Your task to perform on an android device: Show the shopping cart on bestbuy. Image 0: 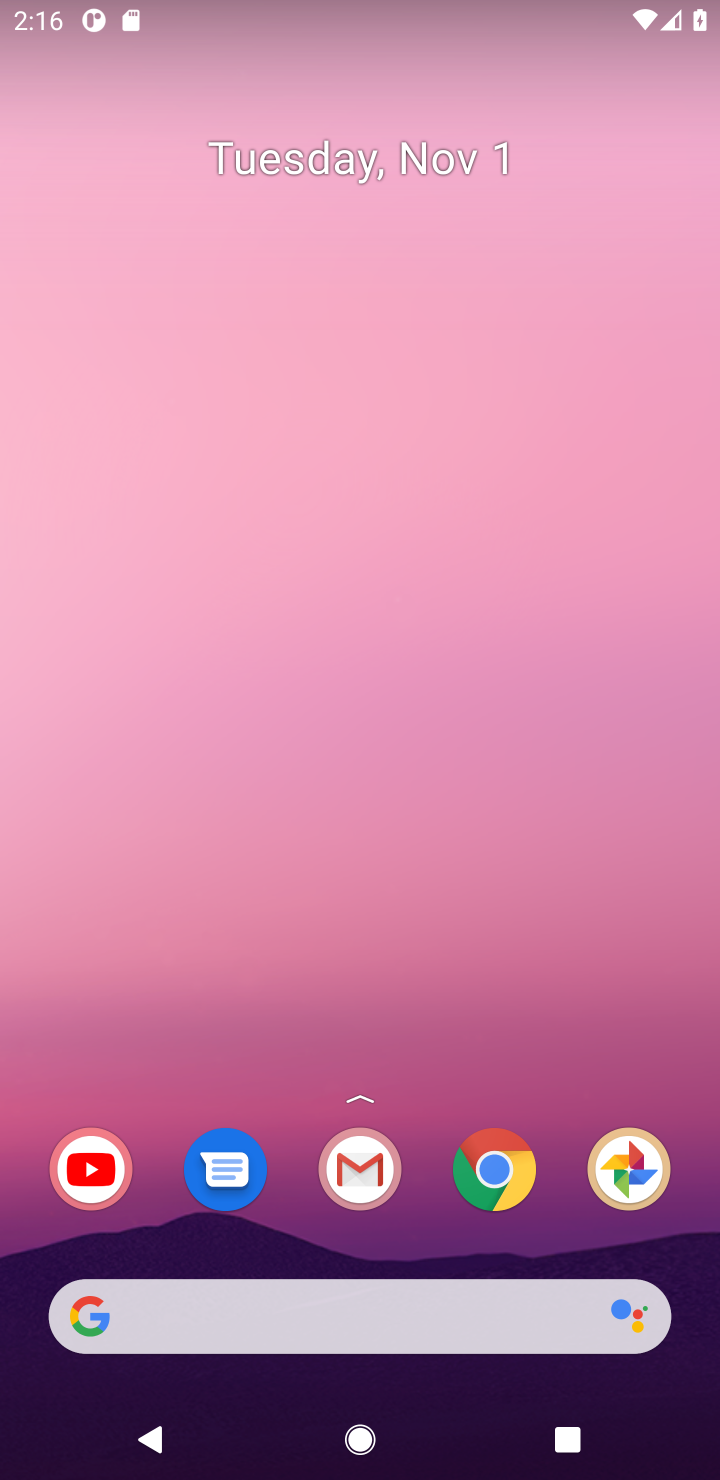
Step 0: press home button
Your task to perform on an android device: Show the shopping cart on bestbuy. Image 1: 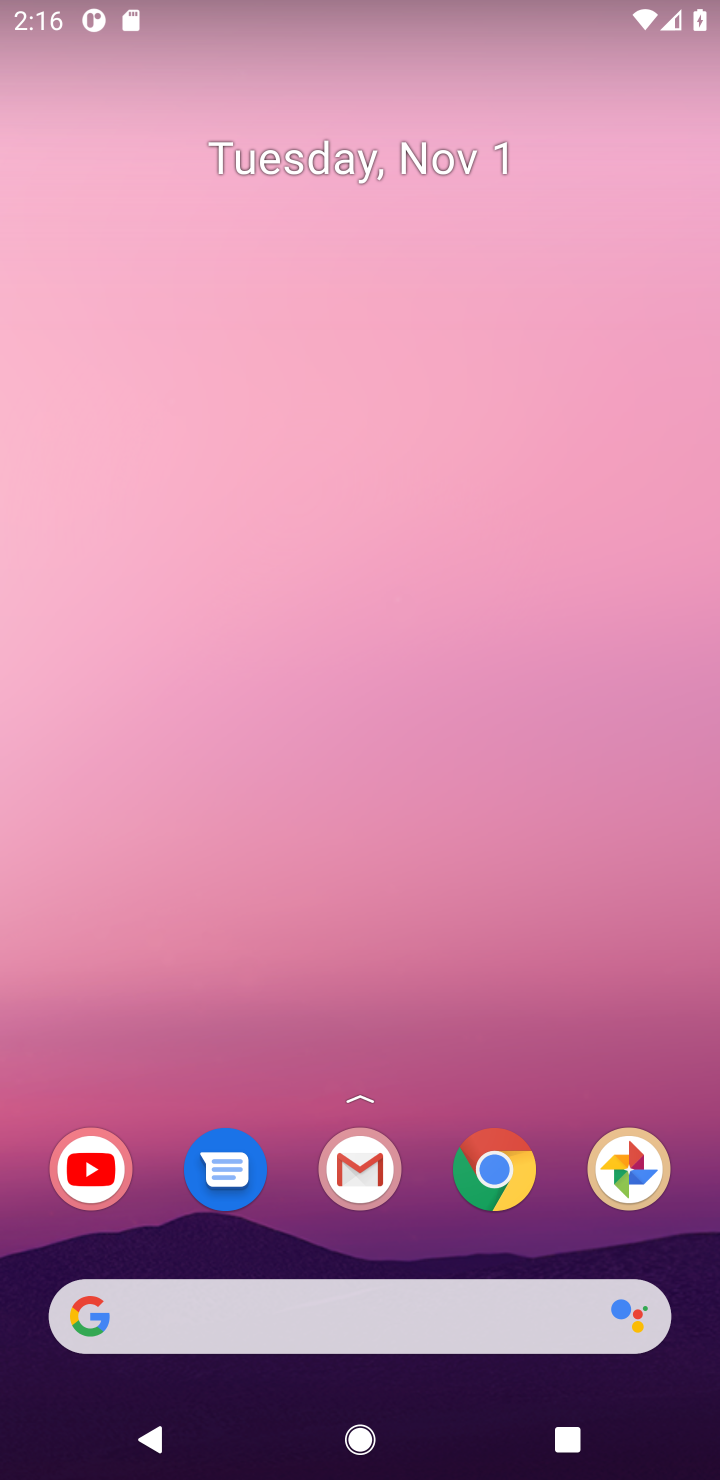
Step 1: drag from (426, 1039) to (460, 40)
Your task to perform on an android device: Show the shopping cart on bestbuy. Image 2: 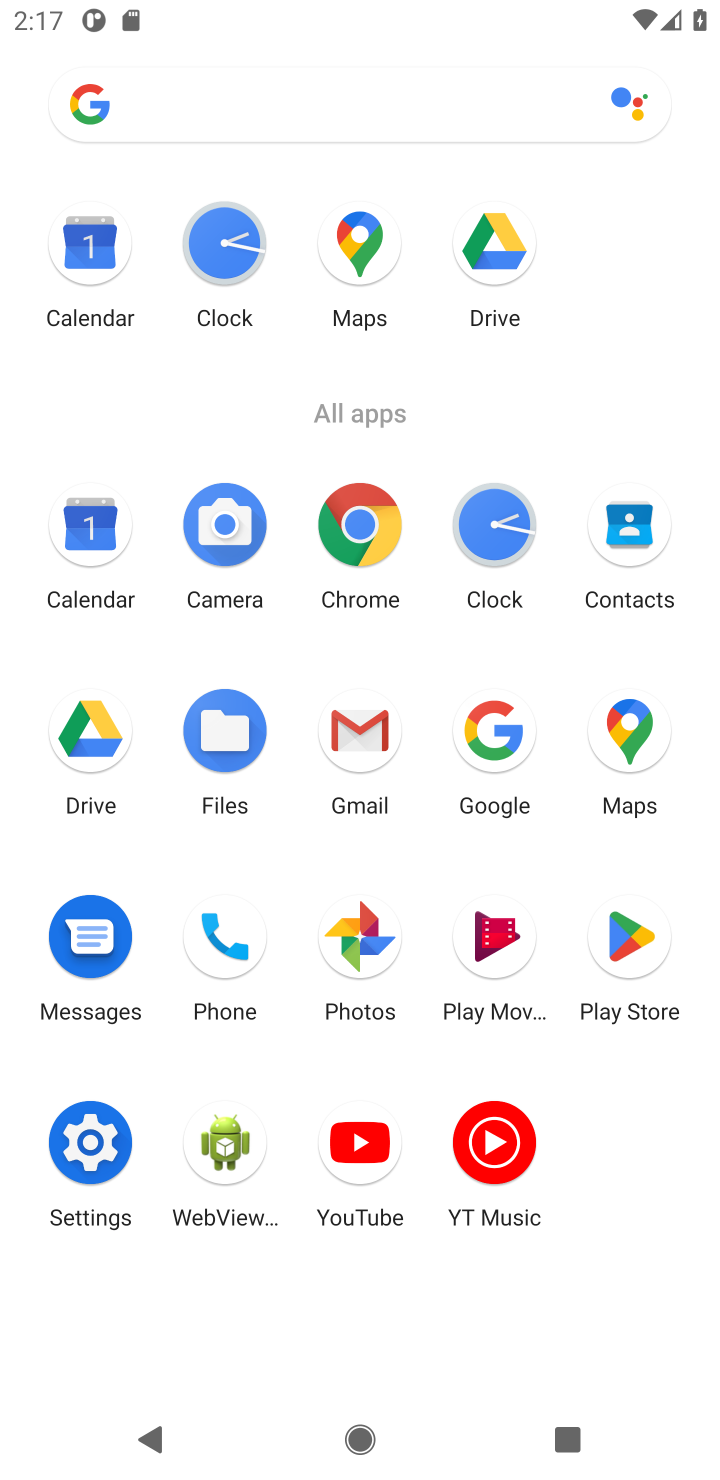
Step 2: click (355, 518)
Your task to perform on an android device: Show the shopping cart on bestbuy. Image 3: 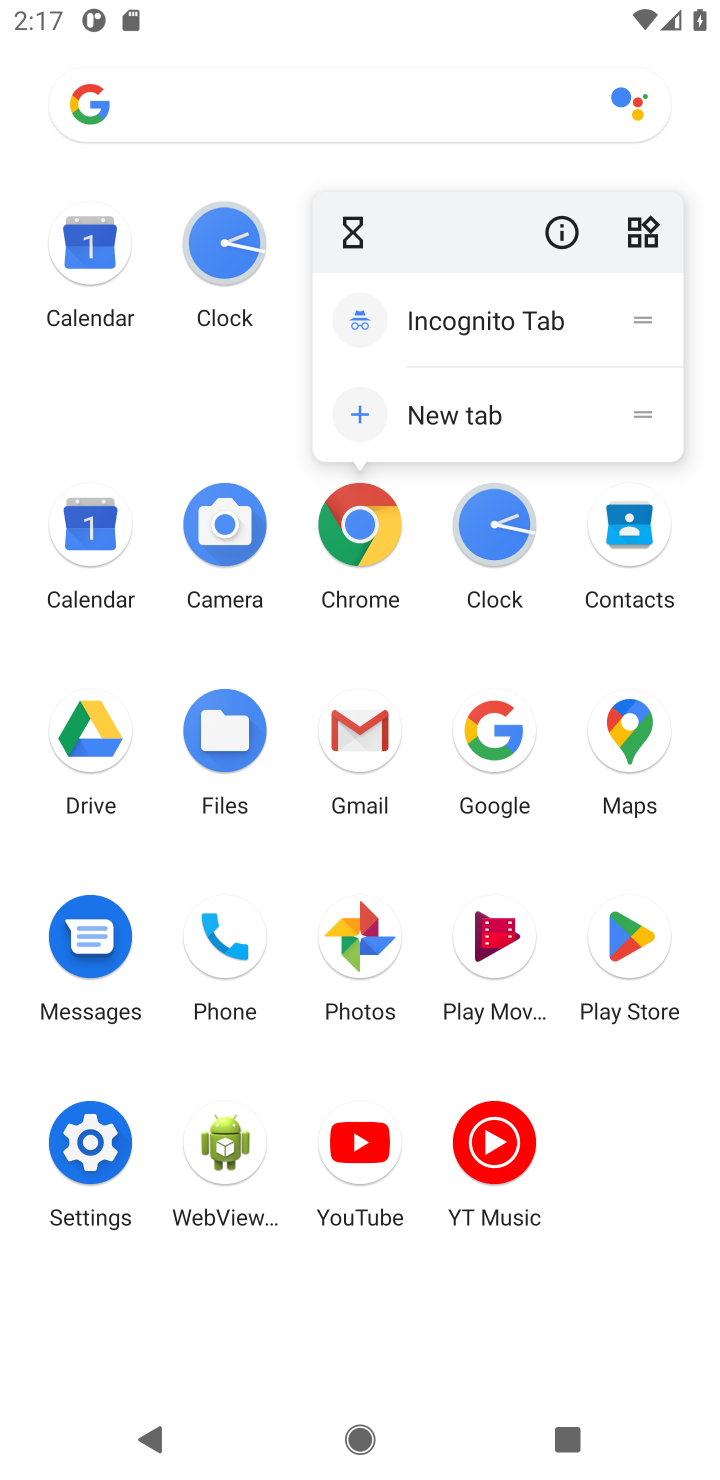
Step 3: click (353, 519)
Your task to perform on an android device: Show the shopping cart on bestbuy. Image 4: 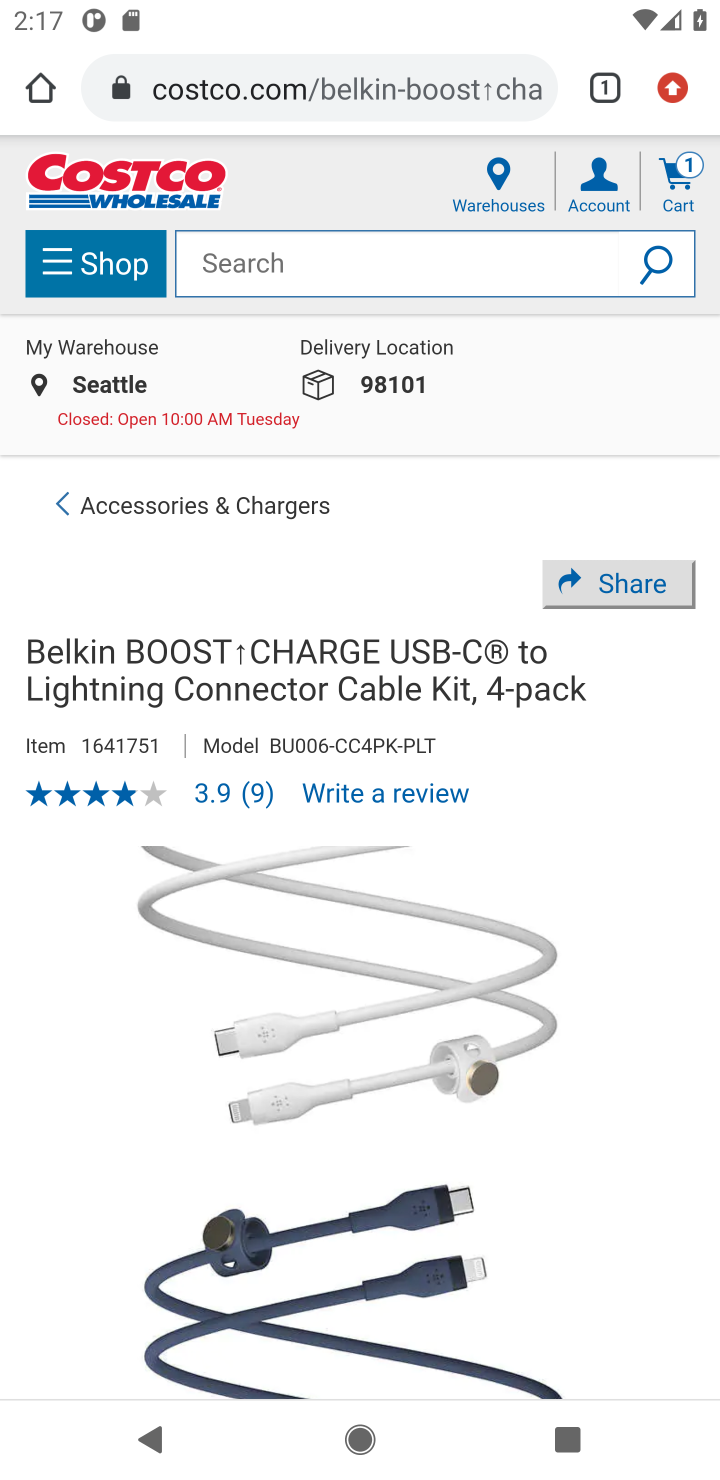
Step 4: click (251, 69)
Your task to perform on an android device: Show the shopping cart on bestbuy. Image 5: 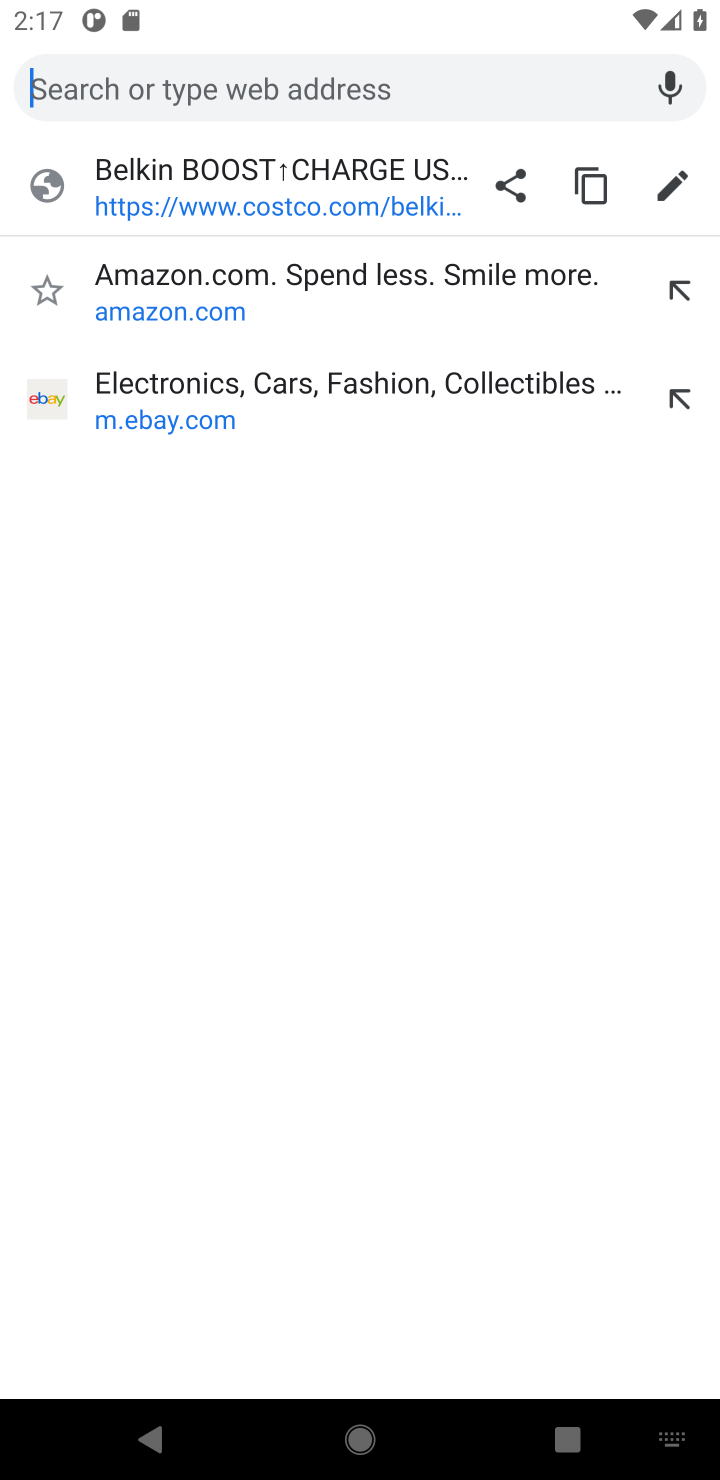
Step 5: type "bestbuy"
Your task to perform on an android device: Show the shopping cart on bestbuy. Image 6: 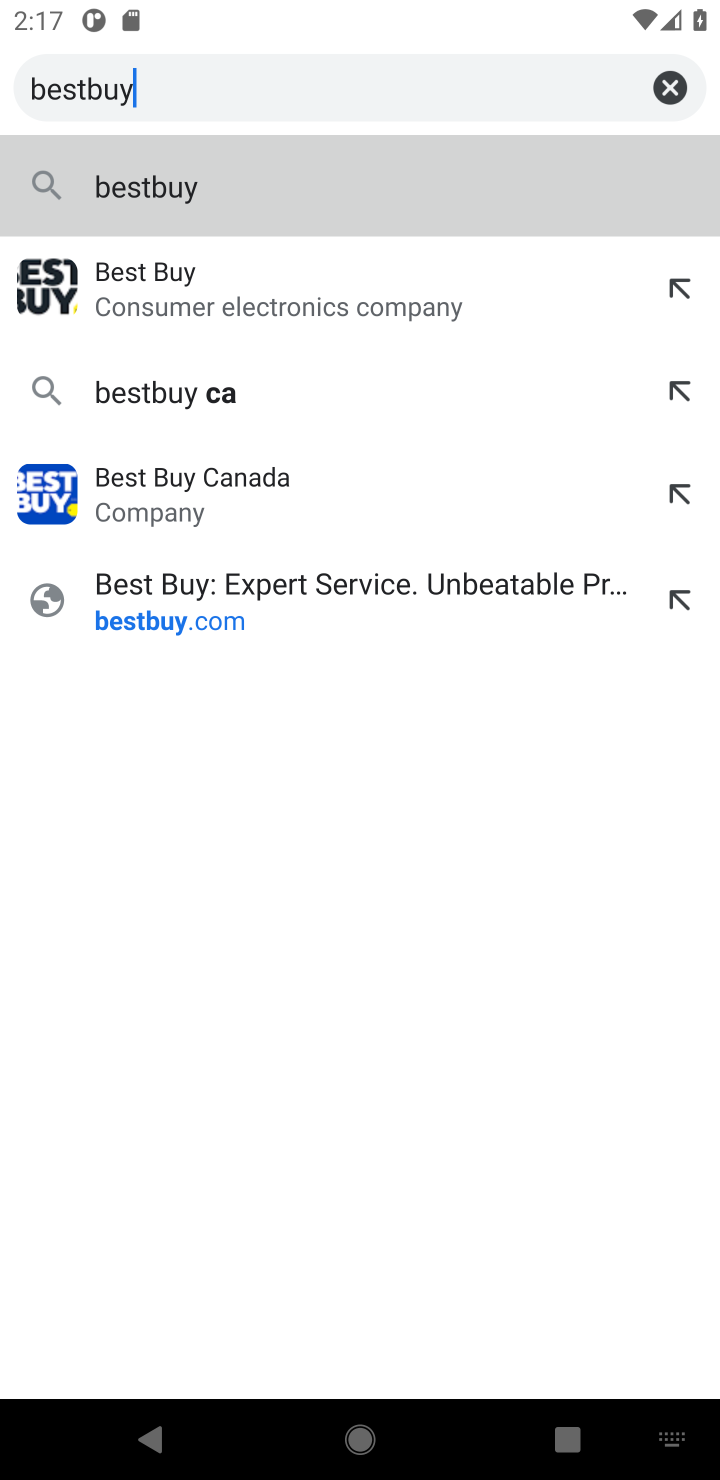
Step 6: type ""
Your task to perform on an android device: Show the shopping cart on bestbuy. Image 7: 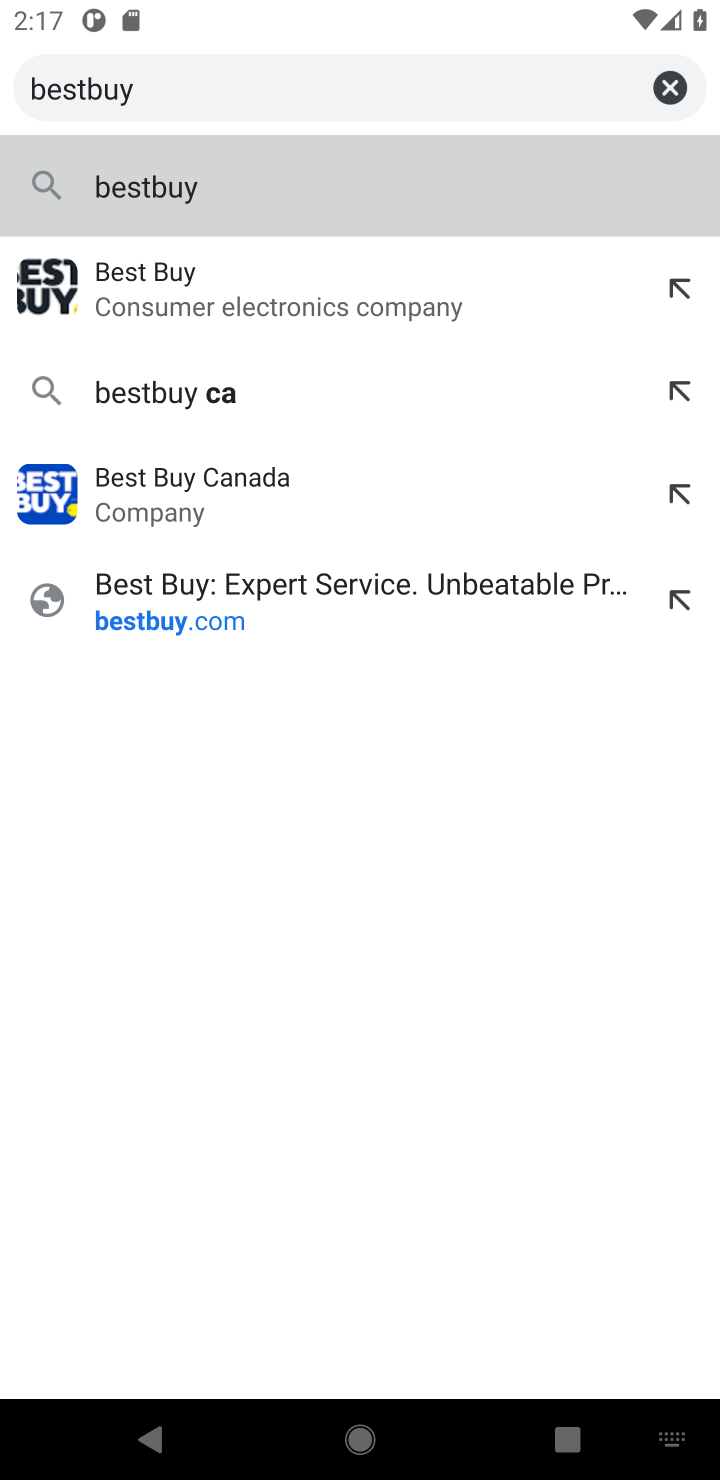
Step 7: click (274, 600)
Your task to perform on an android device: Show the shopping cart on bestbuy. Image 8: 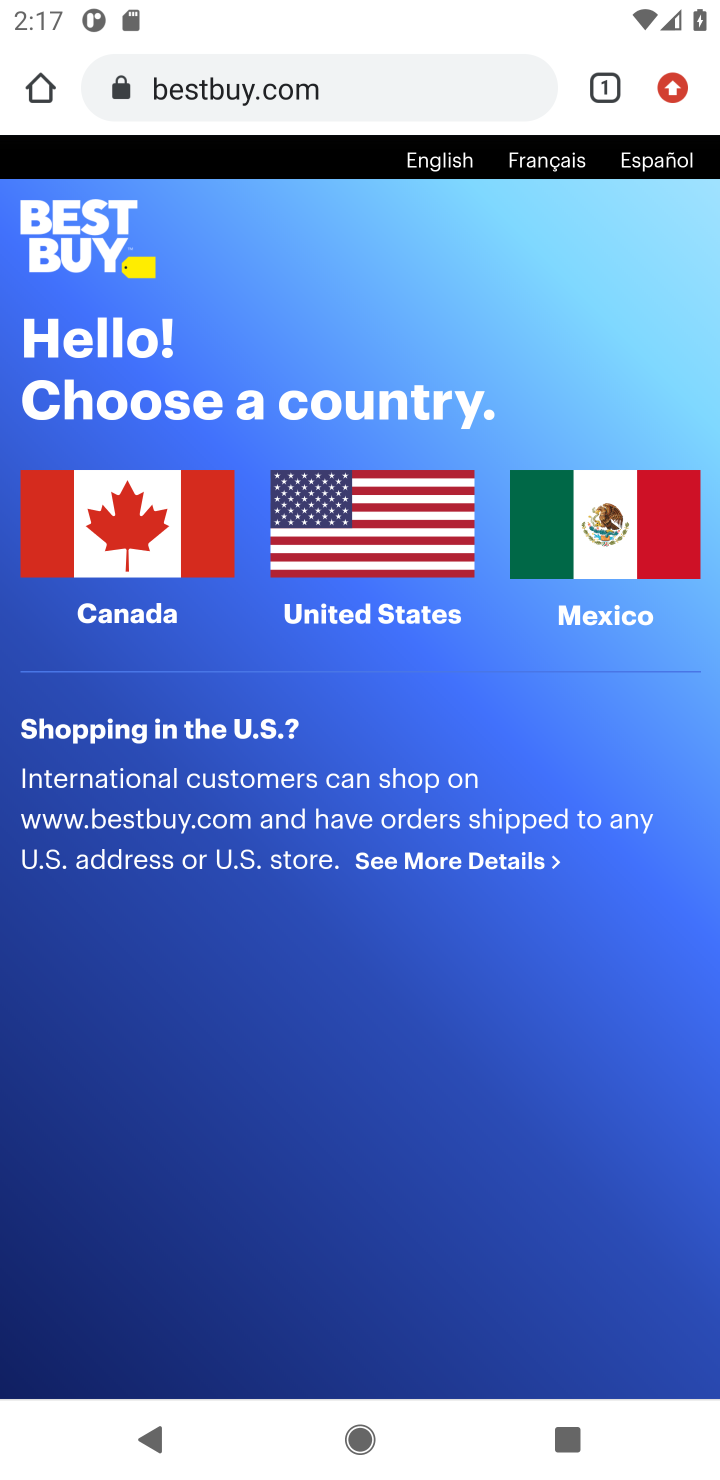
Step 8: click (374, 511)
Your task to perform on an android device: Show the shopping cart on bestbuy. Image 9: 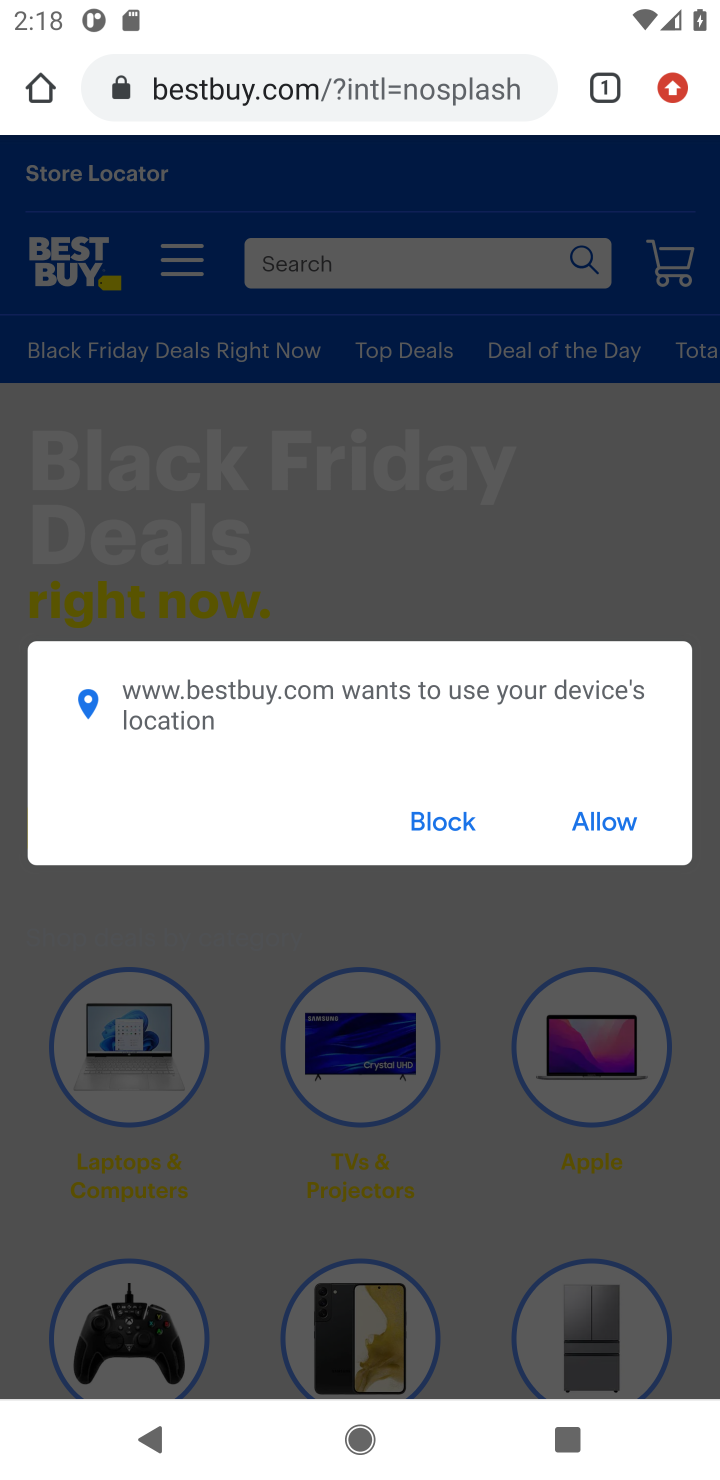
Step 9: click (606, 840)
Your task to perform on an android device: Show the shopping cart on bestbuy. Image 10: 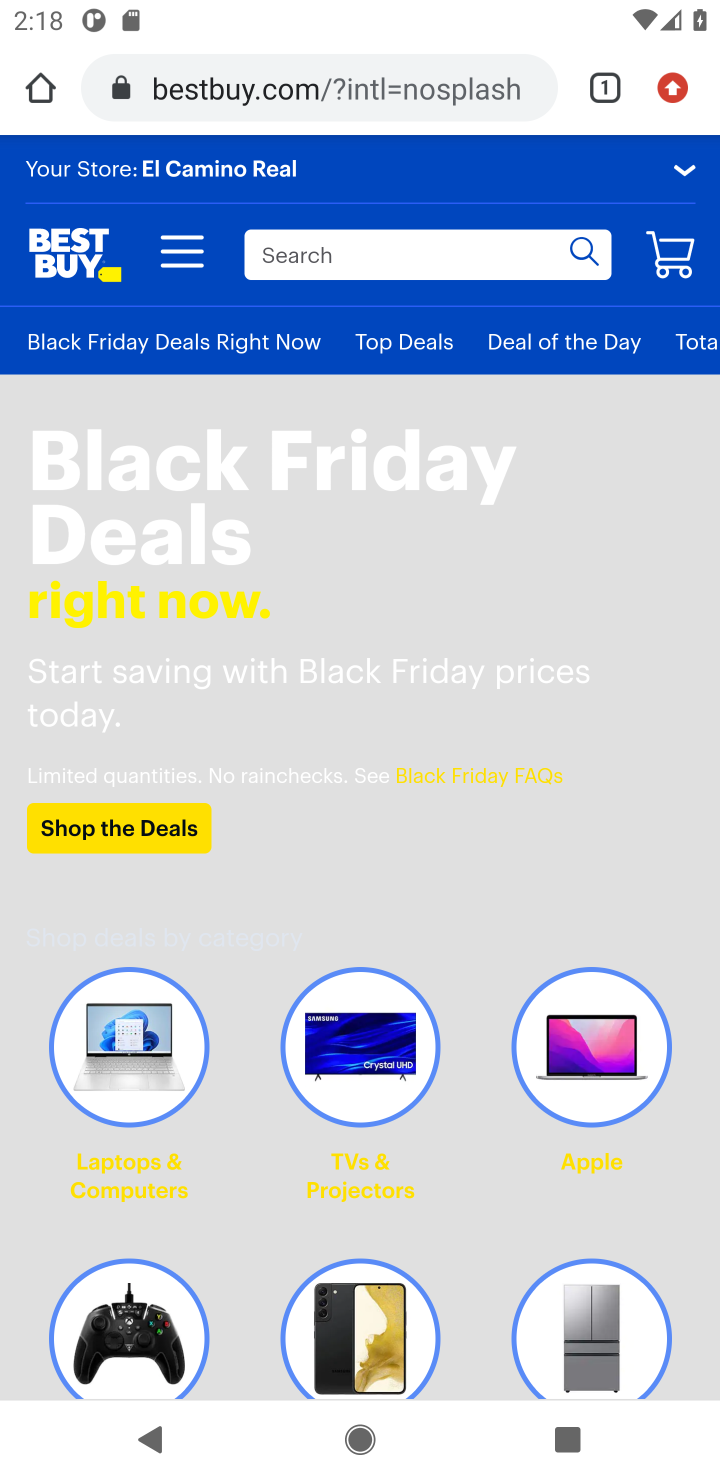
Step 10: click (678, 259)
Your task to perform on an android device: Show the shopping cart on bestbuy. Image 11: 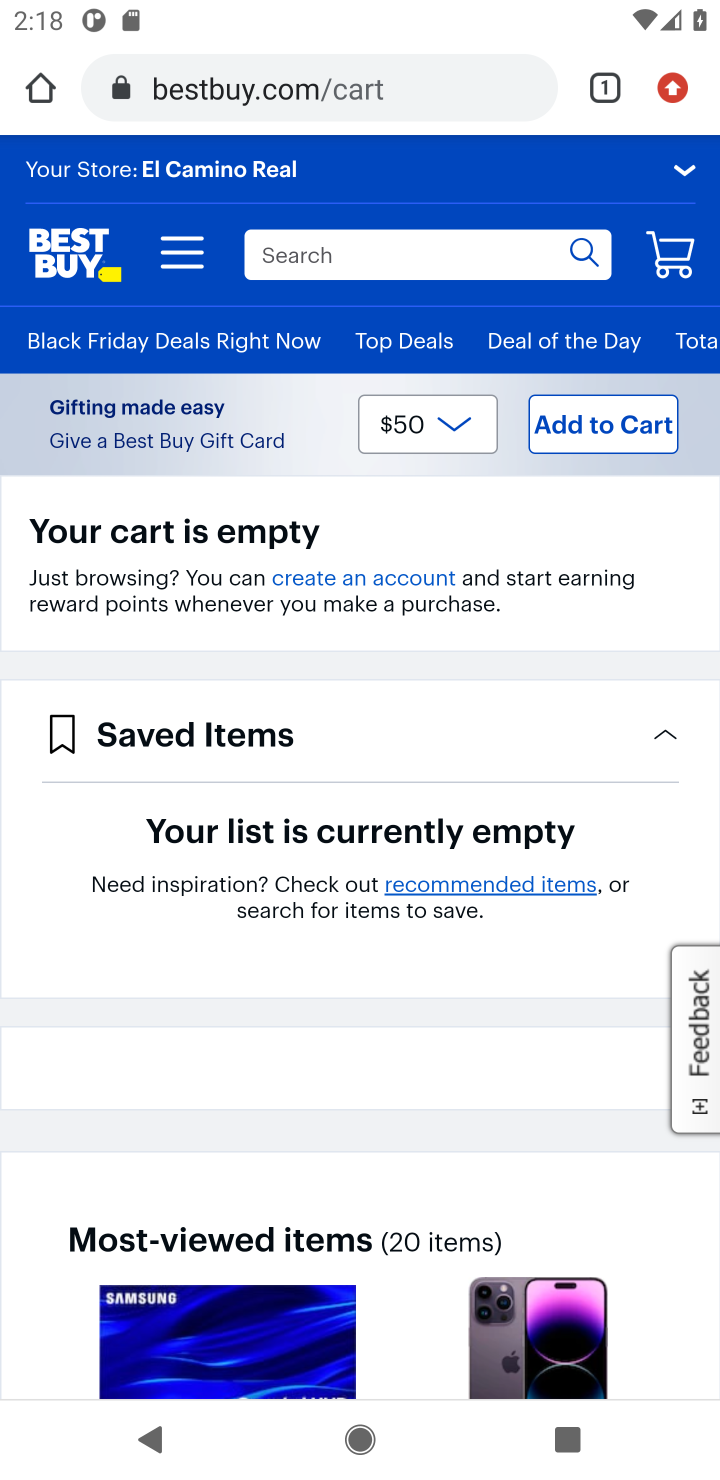
Step 11: task complete